Your task to perform on an android device: Open eBay Image 0: 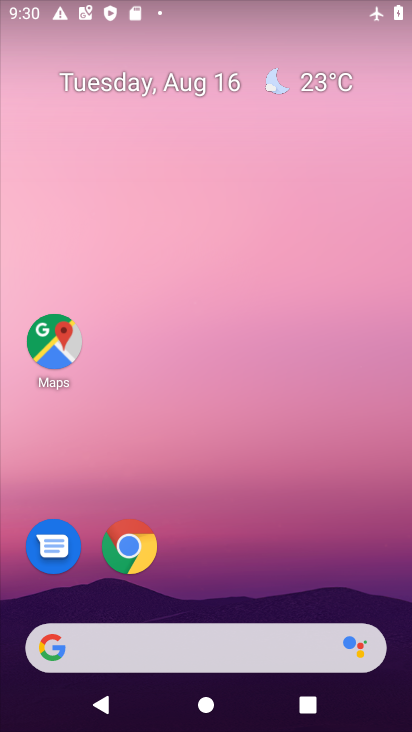
Step 0: click (226, 651)
Your task to perform on an android device: Open eBay Image 1: 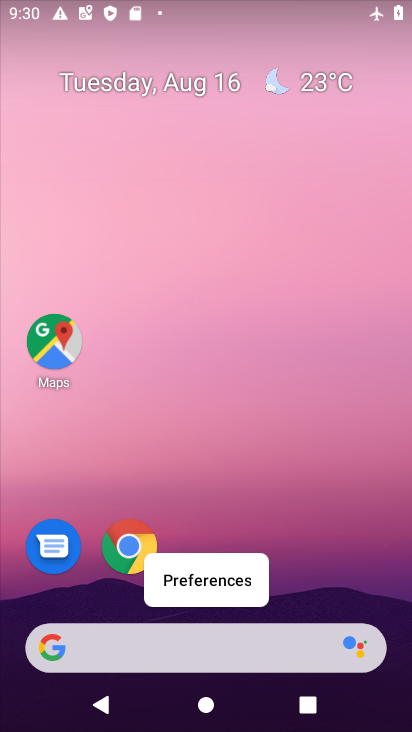
Step 1: click (209, 652)
Your task to perform on an android device: Open eBay Image 2: 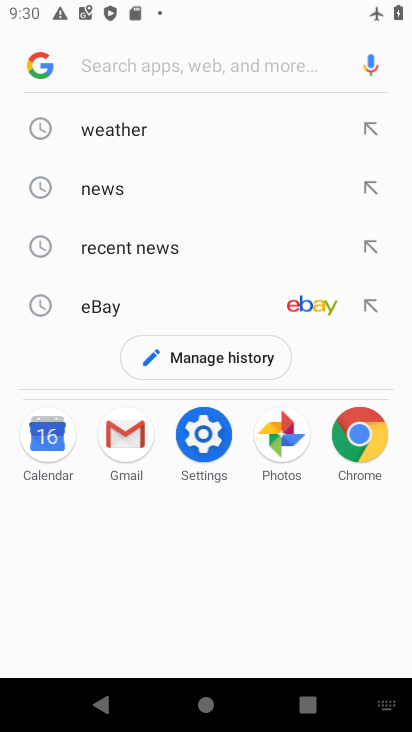
Step 2: click (224, 301)
Your task to perform on an android device: Open eBay Image 3: 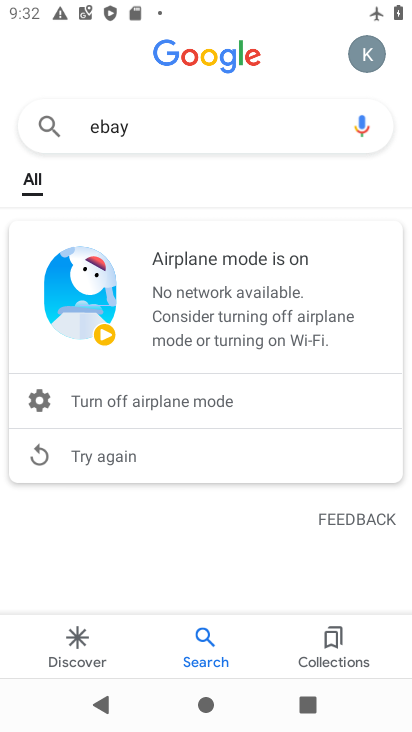
Step 3: task complete